Your task to perform on an android device: Open Maps and search for coffee Image 0: 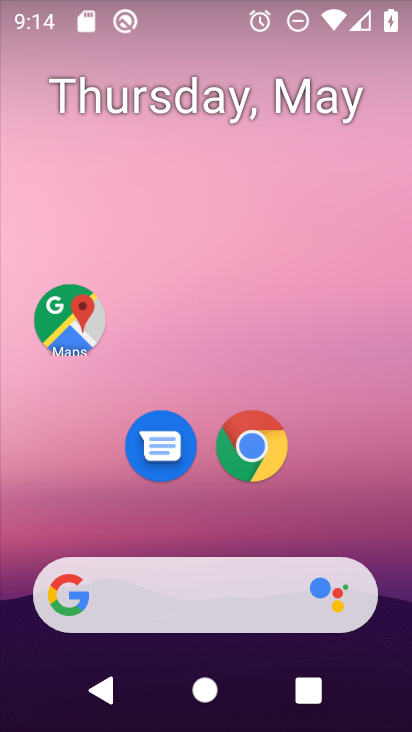
Step 0: drag from (342, 513) to (342, 149)
Your task to perform on an android device: Open Maps and search for coffee Image 1: 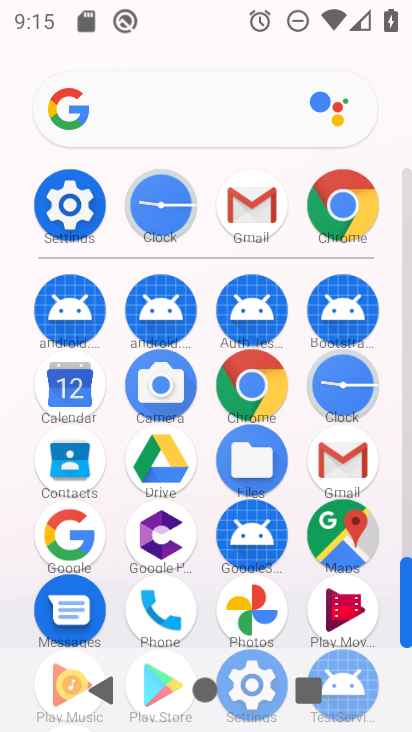
Step 1: click (334, 538)
Your task to perform on an android device: Open Maps and search for coffee Image 2: 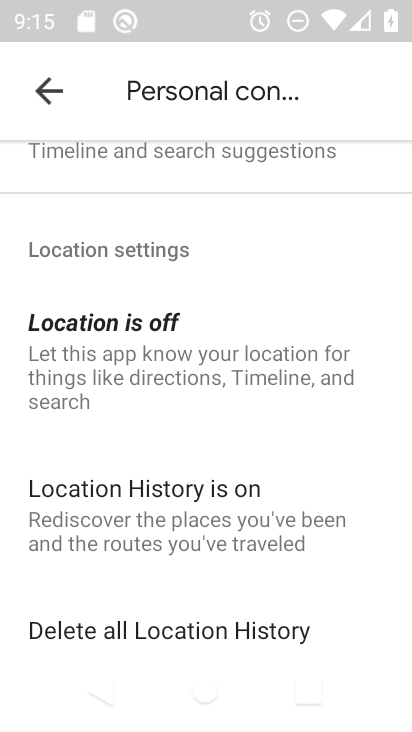
Step 2: click (59, 100)
Your task to perform on an android device: Open Maps and search for coffee Image 3: 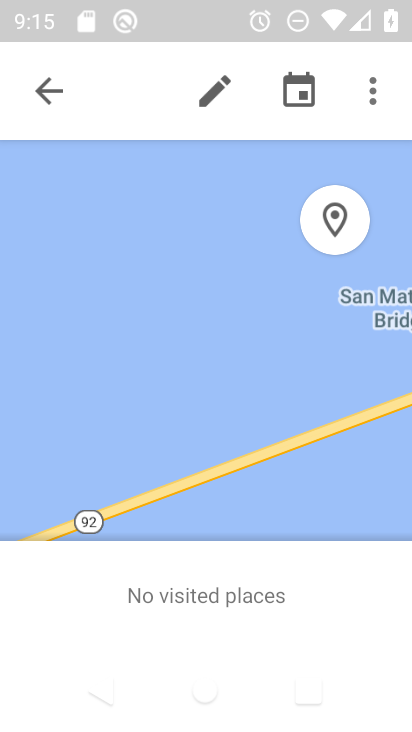
Step 3: click (61, 98)
Your task to perform on an android device: Open Maps and search for coffee Image 4: 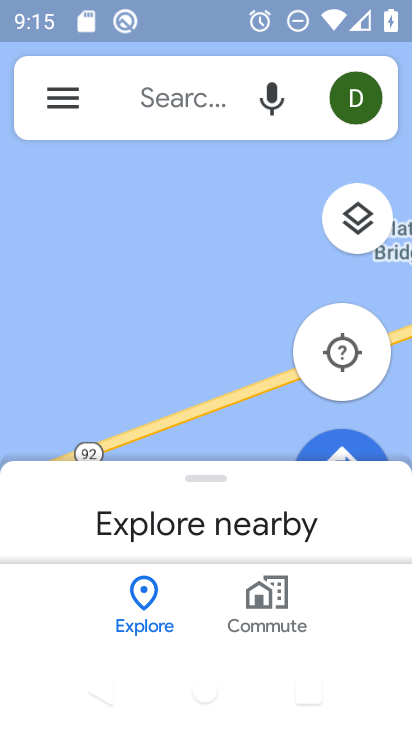
Step 4: click (179, 106)
Your task to perform on an android device: Open Maps and search for coffee Image 5: 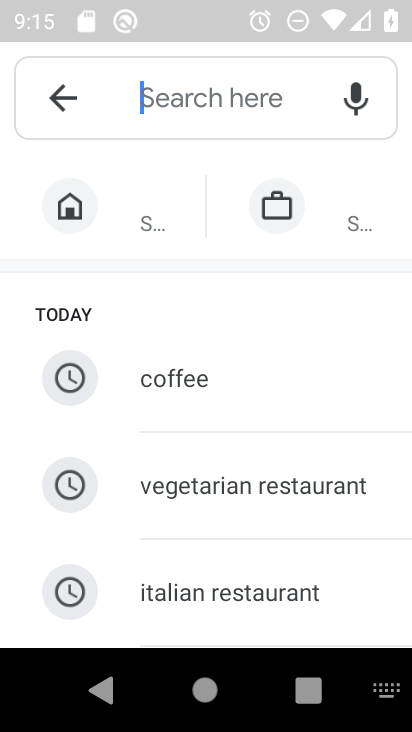
Step 5: type "coffee"
Your task to perform on an android device: Open Maps and search for coffee Image 6: 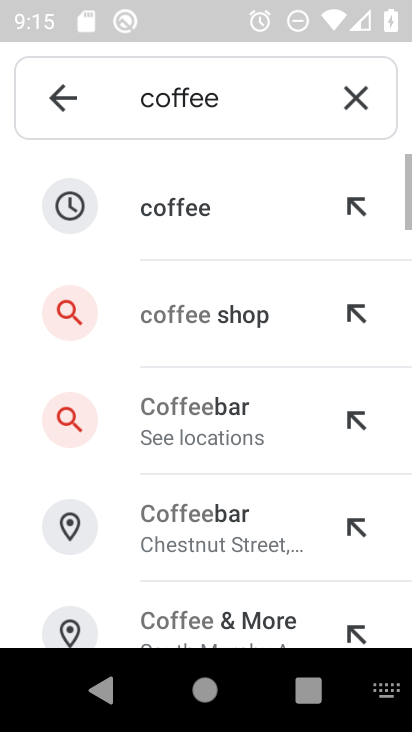
Step 6: click (195, 214)
Your task to perform on an android device: Open Maps and search for coffee Image 7: 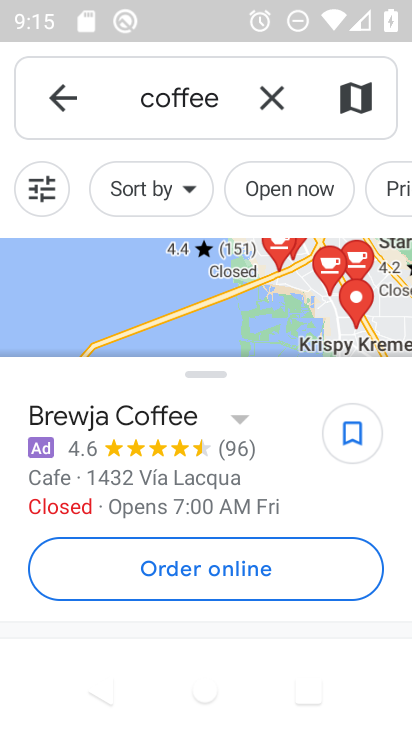
Step 7: task complete